Your task to perform on an android device: Open Reddit.com Image 0: 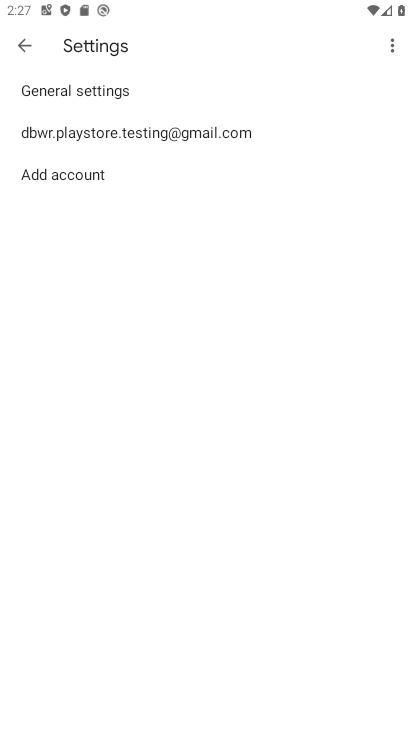
Step 0: press home button
Your task to perform on an android device: Open Reddit.com Image 1: 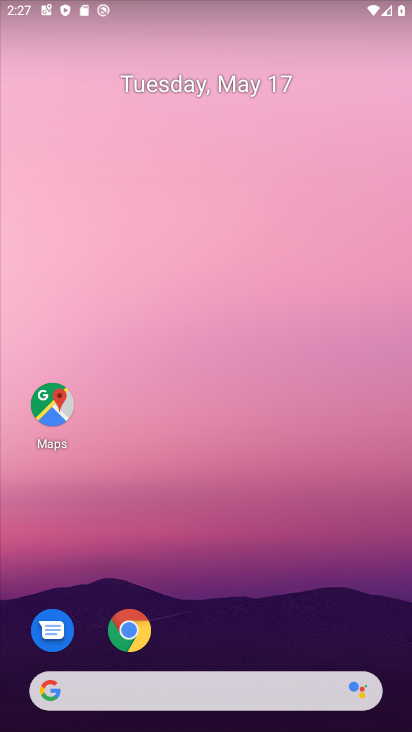
Step 1: click (126, 620)
Your task to perform on an android device: Open Reddit.com Image 2: 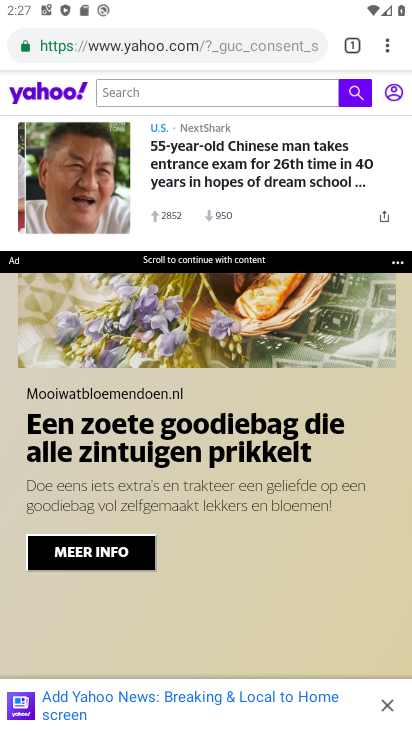
Step 2: click (357, 43)
Your task to perform on an android device: Open Reddit.com Image 3: 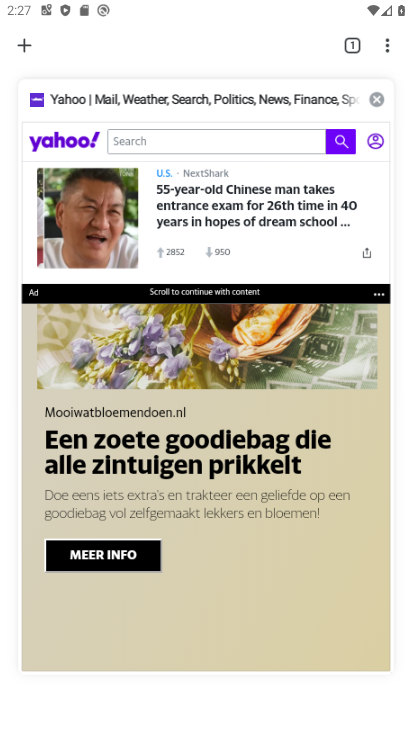
Step 3: click (374, 98)
Your task to perform on an android device: Open Reddit.com Image 4: 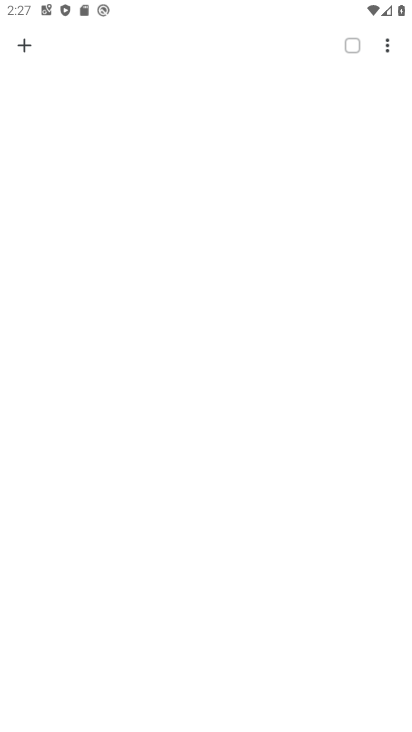
Step 4: click (32, 43)
Your task to perform on an android device: Open Reddit.com Image 5: 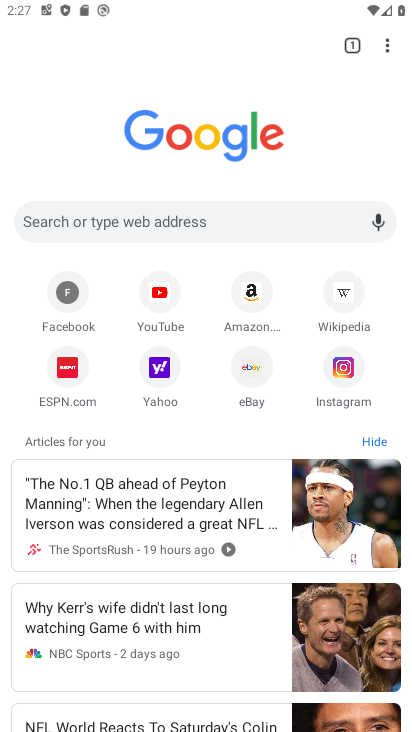
Step 5: click (87, 221)
Your task to perform on an android device: Open Reddit.com Image 6: 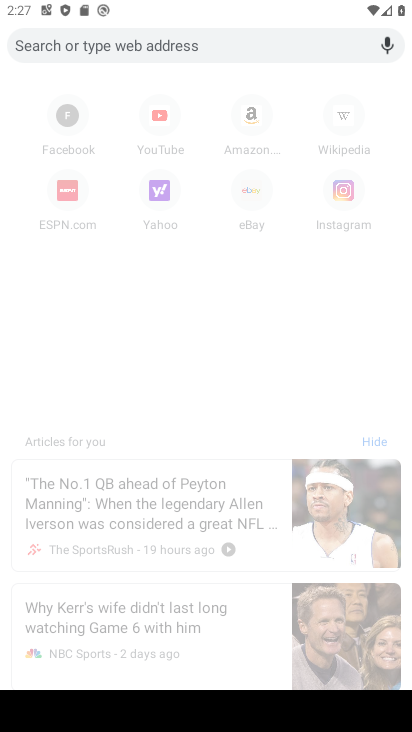
Step 6: type "reddit.com"
Your task to perform on an android device: Open Reddit.com Image 7: 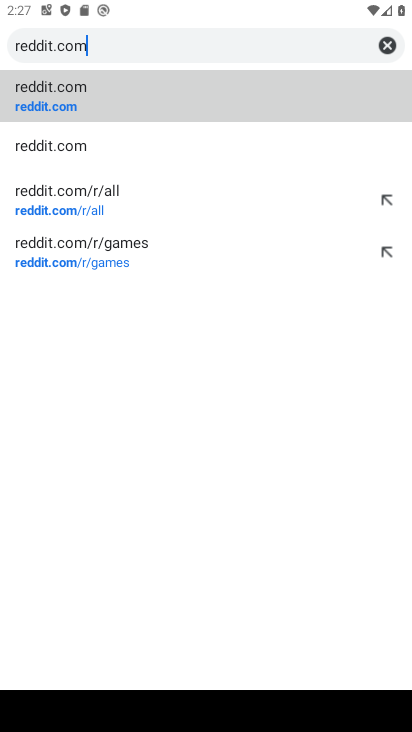
Step 7: click (18, 103)
Your task to perform on an android device: Open Reddit.com Image 8: 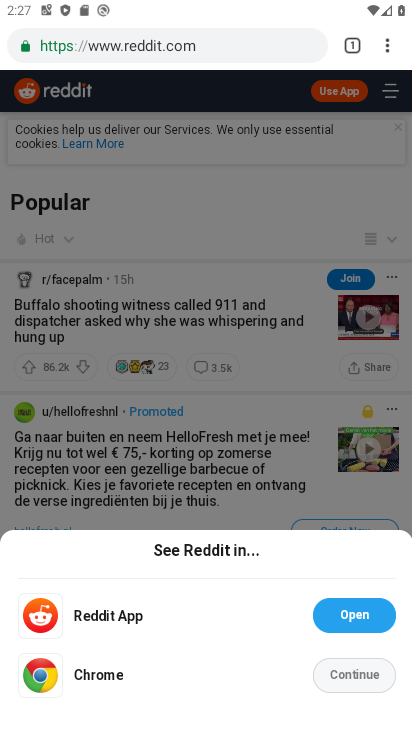
Step 8: task complete